Your task to perform on an android device: turn on translation in the chrome app Image 0: 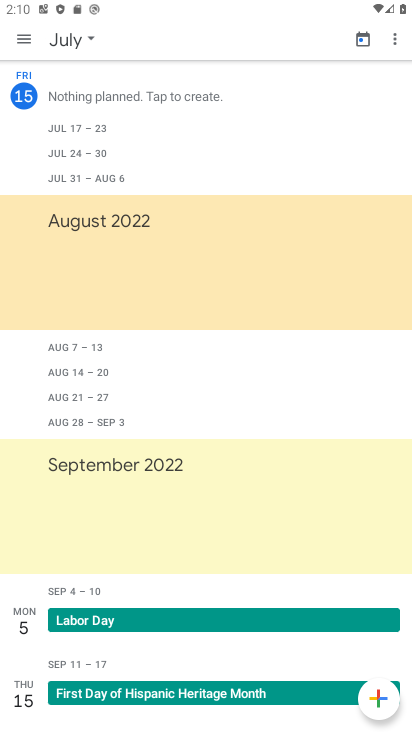
Step 0: press home button
Your task to perform on an android device: turn on translation in the chrome app Image 1: 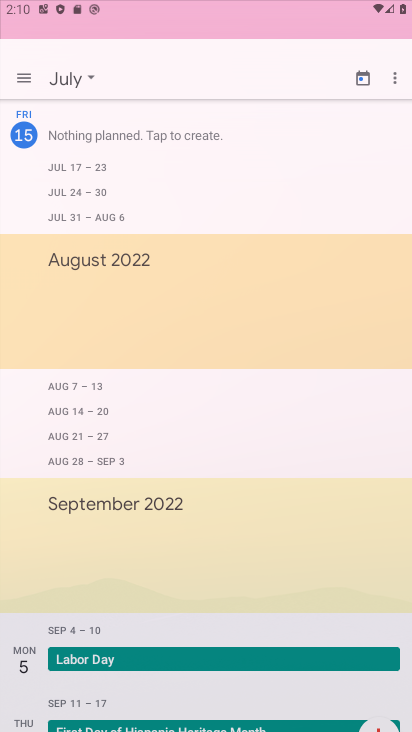
Step 1: drag from (359, 614) to (339, 74)
Your task to perform on an android device: turn on translation in the chrome app Image 2: 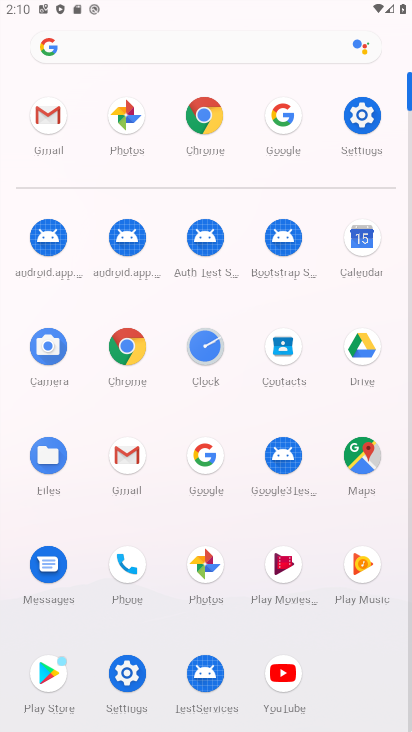
Step 2: click (203, 132)
Your task to perform on an android device: turn on translation in the chrome app Image 3: 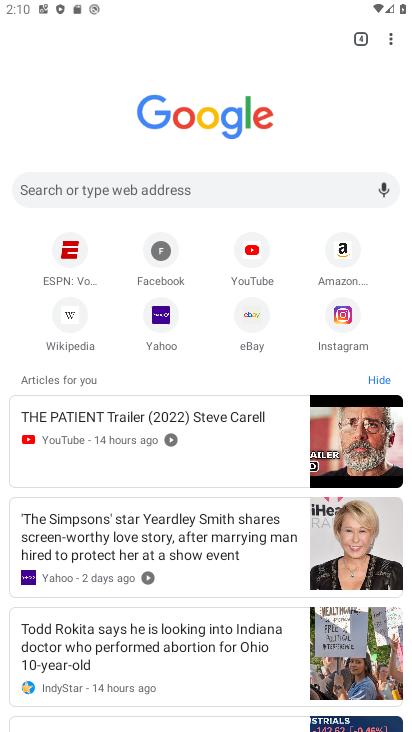
Step 3: click (388, 40)
Your task to perform on an android device: turn on translation in the chrome app Image 4: 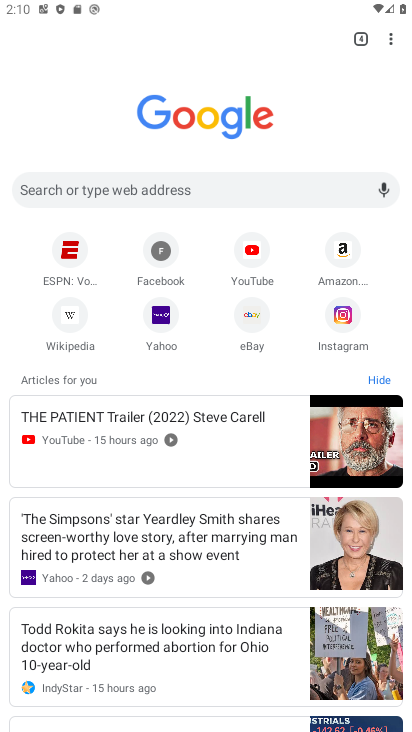
Step 4: click (388, 40)
Your task to perform on an android device: turn on translation in the chrome app Image 5: 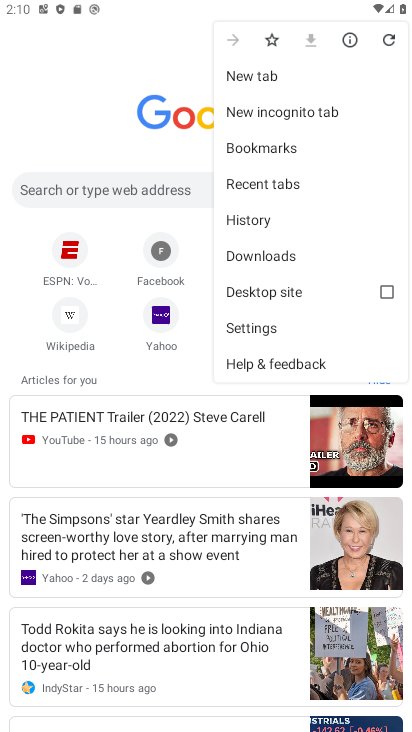
Step 5: click (257, 335)
Your task to perform on an android device: turn on translation in the chrome app Image 6: 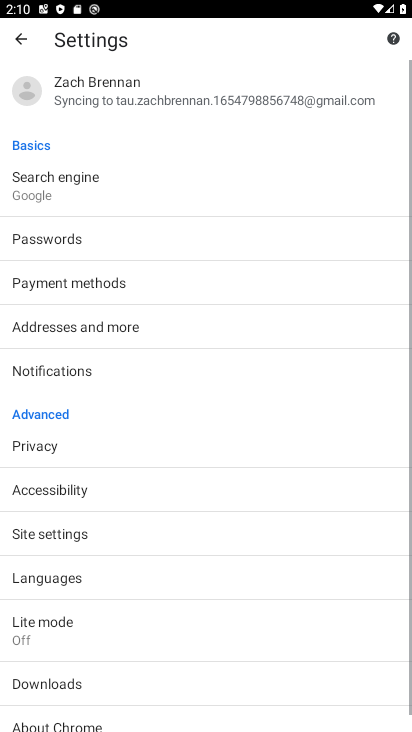
Step 6: click (44, 586)
Your task to perform on an android device: turn on translation in the chrome app Image 7: 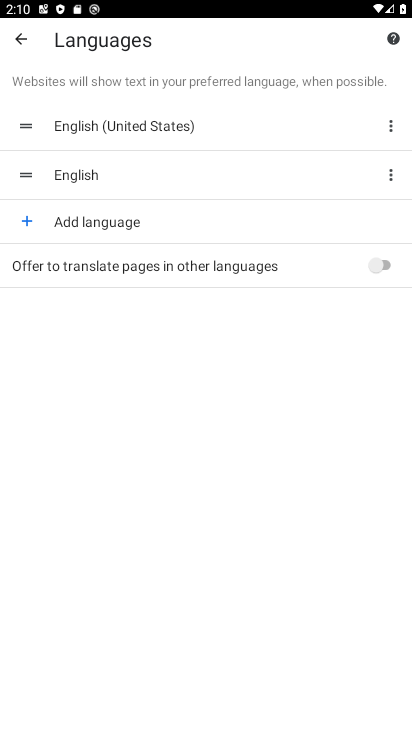
Step 7: click (391, 267)
Your task to perform on an android device: turn on translation in the chrome app Image 8: 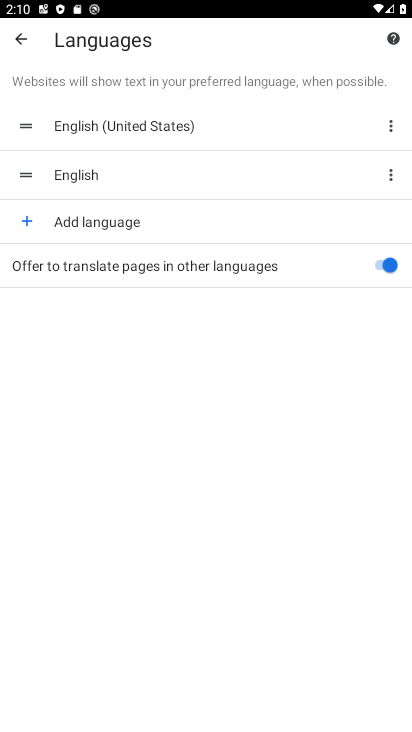
Step 8: task complete